Your task to perform on an android device: choose inbox layout in the gmail app Image 0: 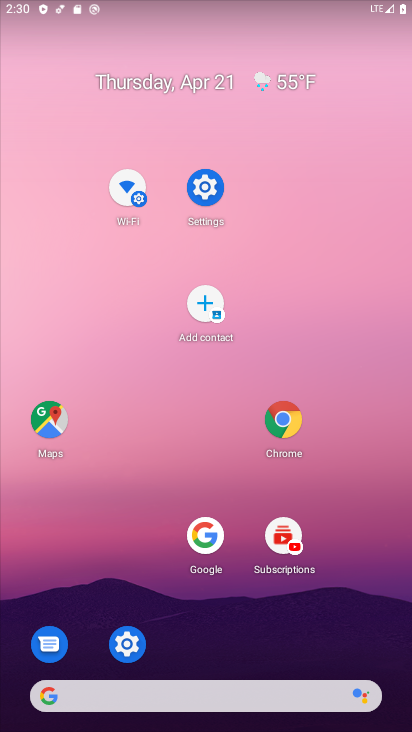
Step 0: drag from (193, 324) to (160, 220)
Your task to perform on an android device: choose inbox layout in the gmail app Image 1: 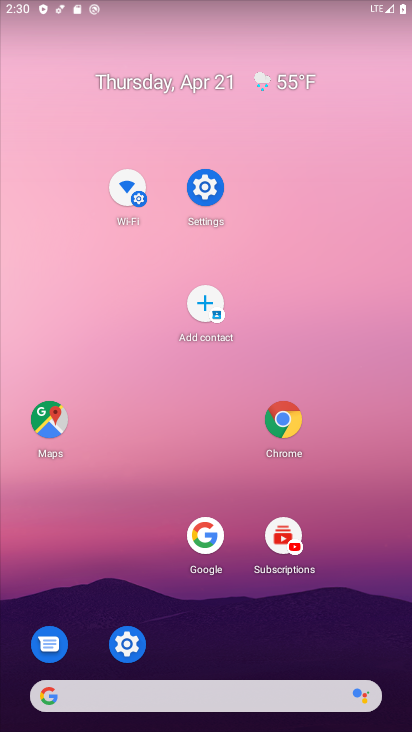
Step 1: drag from (255, 597) to (143, 45)
Your task to perform on an android device: choose inbox layout in the gmail app Image 2: 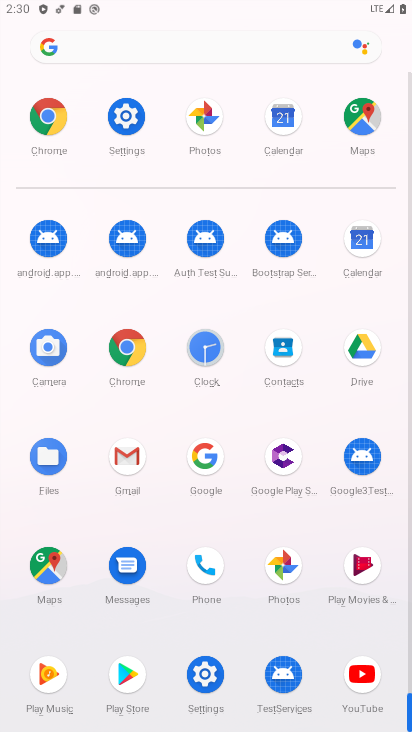
Step 2: click (130, 455)
Your task to perform on an android device: choose inbox layout in the gmail app Image 3: 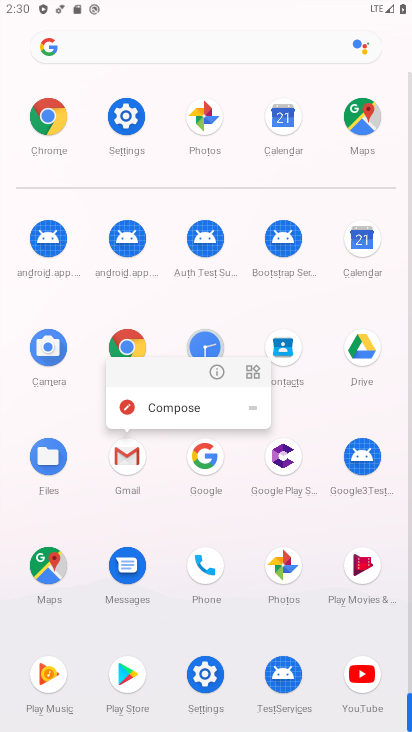
Step 3: click (124, 465)
Your task to perform on an android device: choose inbox layout in the gmail app Image 4: 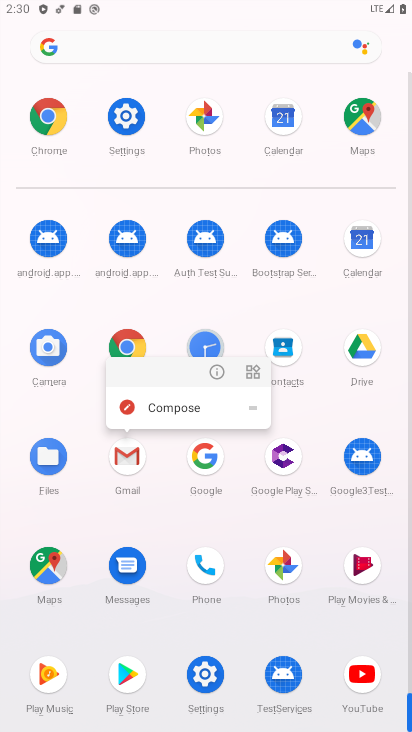
Step 4: click (124, 461)
Your task to perform on an android device: choose inbox layout in the gmail app Image 5: 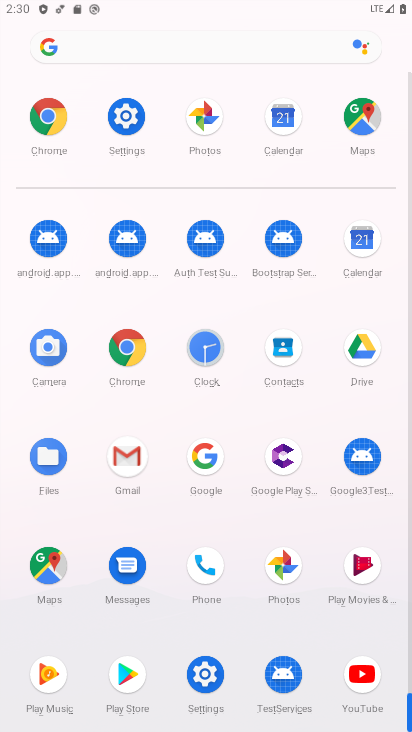
Step 5: click (124, 461)
Your task to perform on an android device: choose inbox layout in the gmail app Image 6: 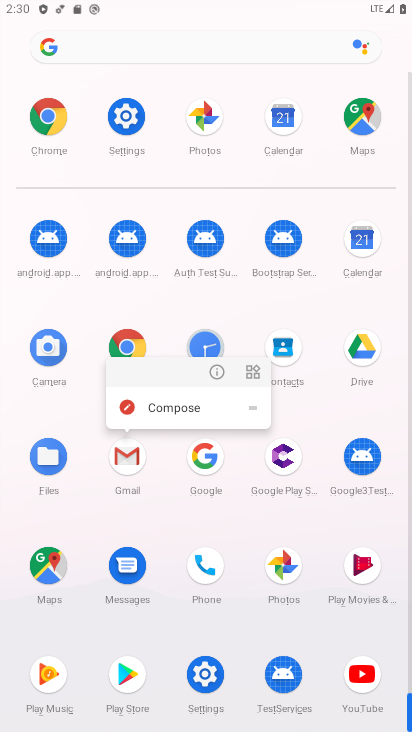
Step 6: click (129, 461)
Your task to perform on an android device: choose inbox layout in the gmail app Image 7: 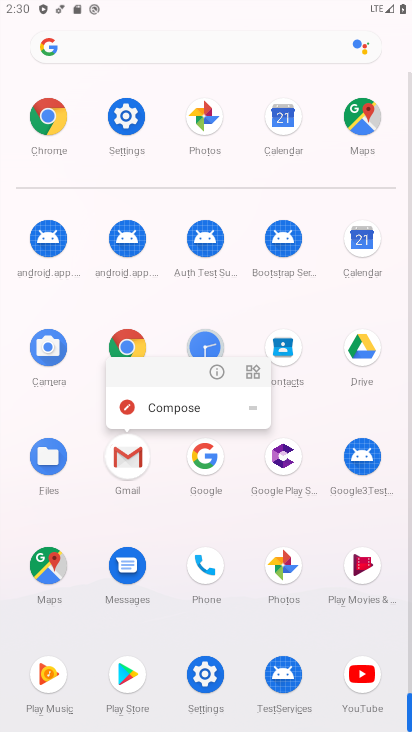
Step 7: click (127, 459)
Your task to perform on an android device: choose inbox layout in the gmail app Image 8: 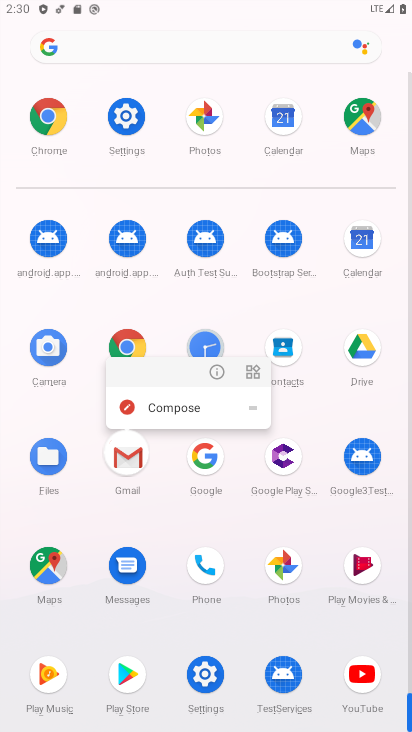
Step 8: click (126, 455)
Your task to perform on an android device: choose inbox layout in the gmail app Image 9: 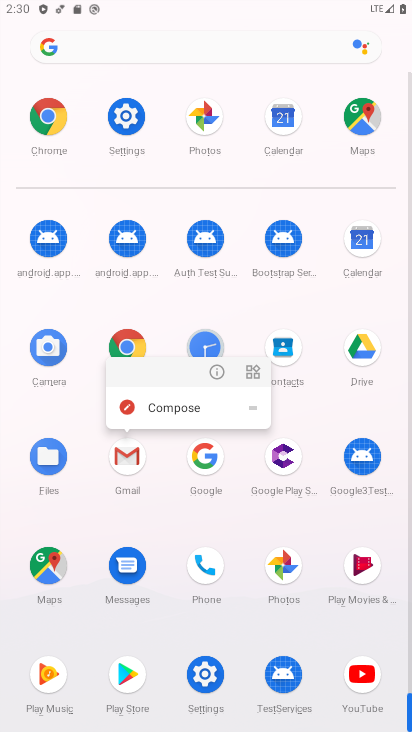
Step 9: click (120, 461)
Your task to perform on an android device: choose inbox layout in the gmail app Image 10: 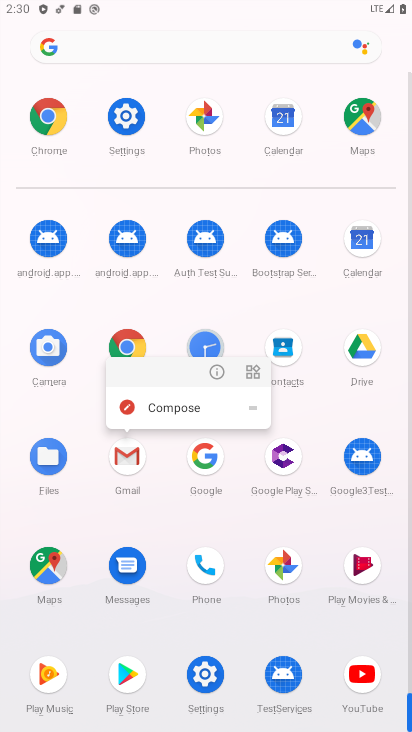
Step 10: click (120, 461)
Your task to perform on an android device: choose inbox layout in the gmail app Image 11: 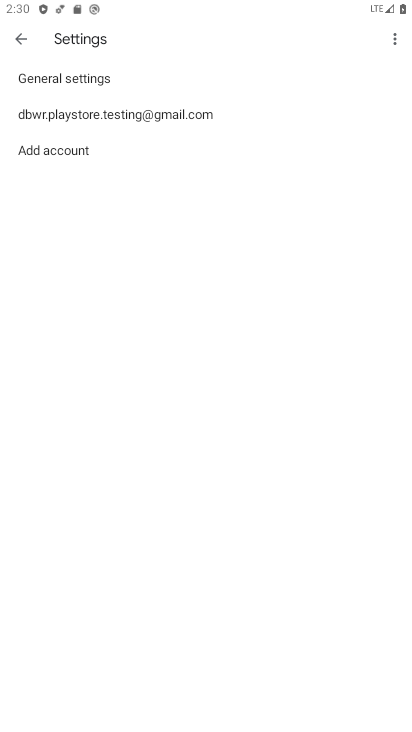
Step 11: click (26, 39)
Your task to perform on an android device: choose inbox layout in the gmail app Image 12: 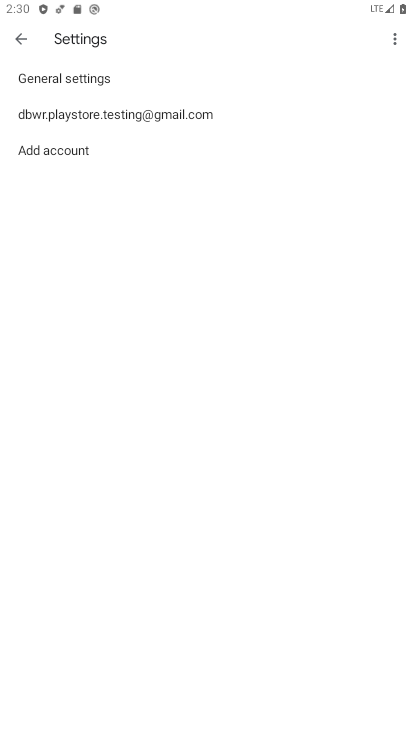
Step 12: click (25, 40)
Your task to perform on an android device: choose inbox layout in the gmail app Image 13: 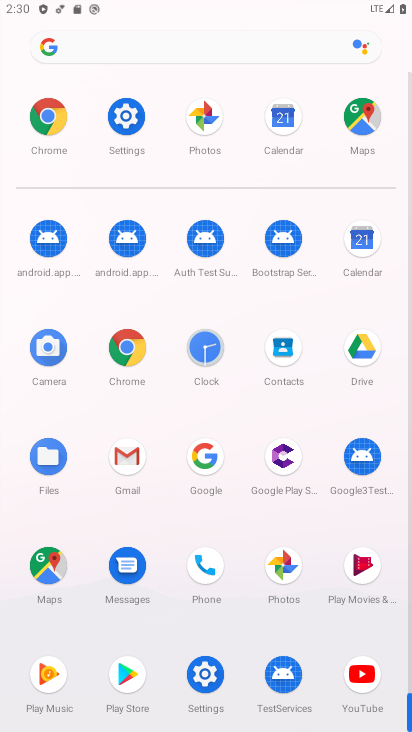
Step 13: click (125, 464)
Your task to perform on an android device: choose inbox layout in the gmail app Image 14: 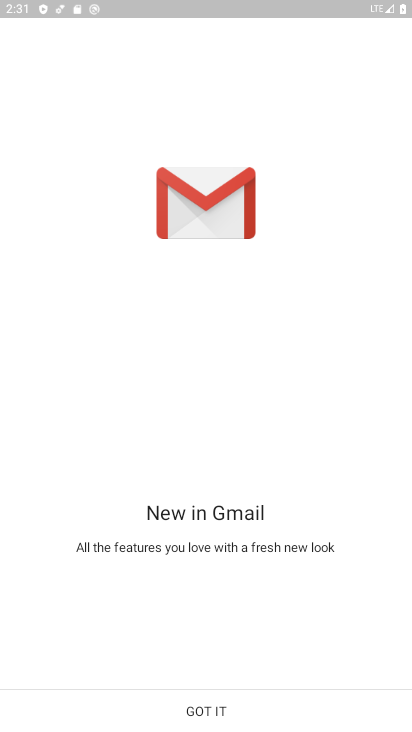
Step 14: click (192, 706)
Your task to perform on an android device: choose inbox layout in the gmail app Image 15: 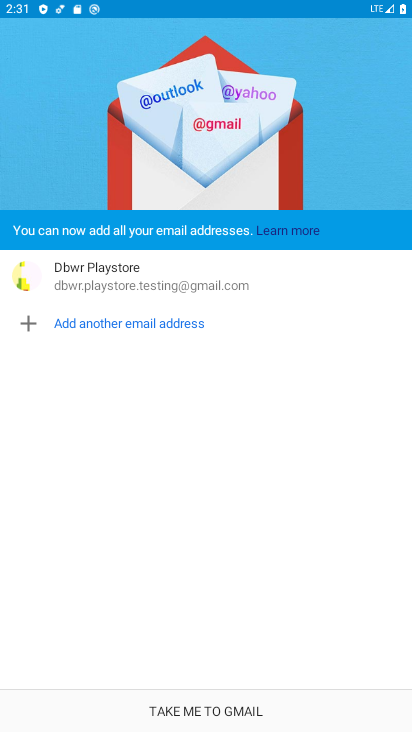
Step 15: click (212, 714)
Your task to perform on an android device: choose inbox layout in the gmail app Image 16: 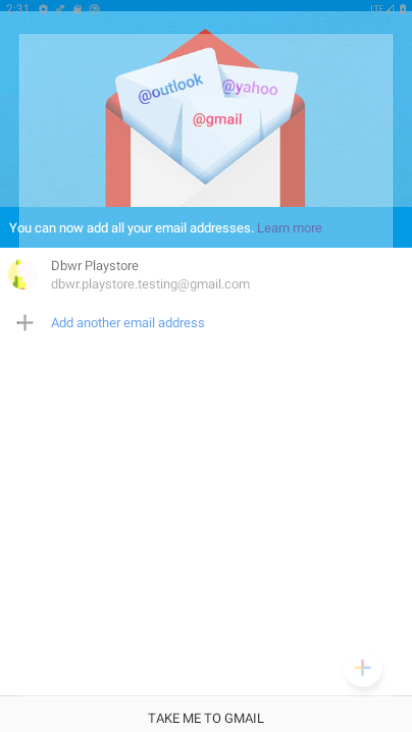
Step 16: click (209, 715)
Your task to perform on an android device: choose inbox layout in the gmail app Image 17: 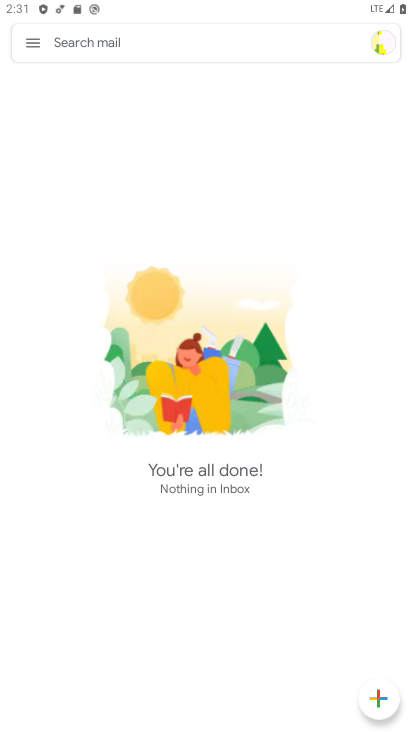
Step 17: drag from (28, 40) to (97, 471)
Your task to perform on an android device: choose inbox layout in the gmail app Image 18: 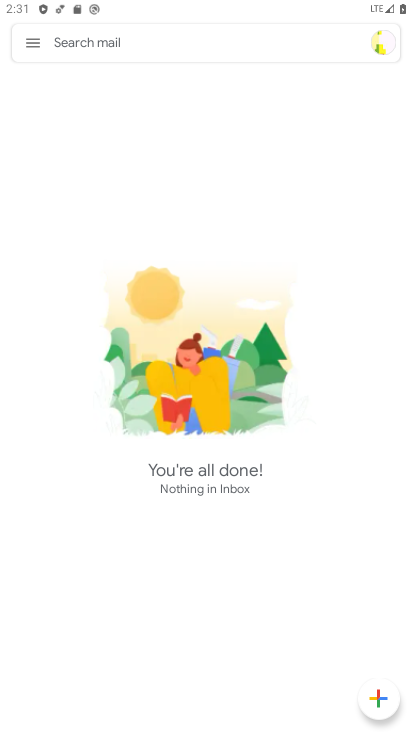
Step 18: click (37, 43)
Your task to perform on an android device: choose inbox layout in the gmail app Image 19: 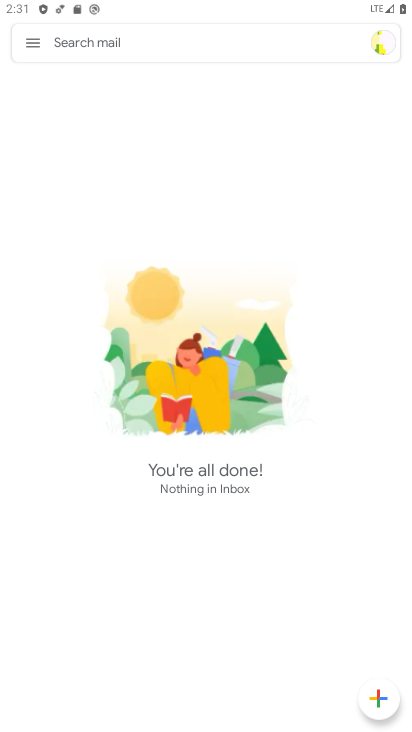
Step 19: click (37, 43)
Your task to perform on an android device: choose inbox layout in the gmail app Image 20: 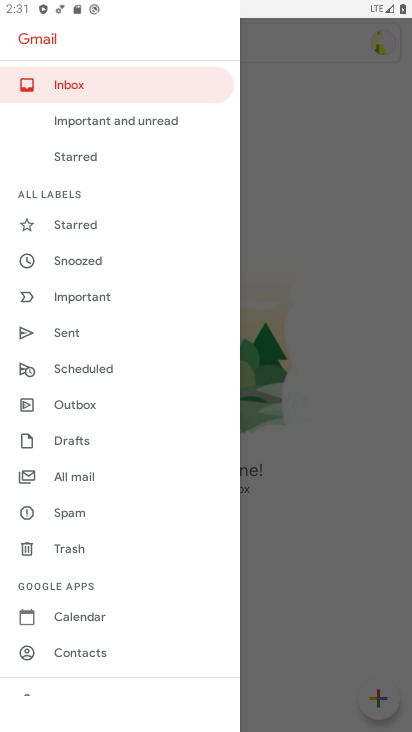
Step 20: drag from (90, 519) to (61, 215)
Your task to perform on an android device: choose inbox layout in the gmail app Image 21: 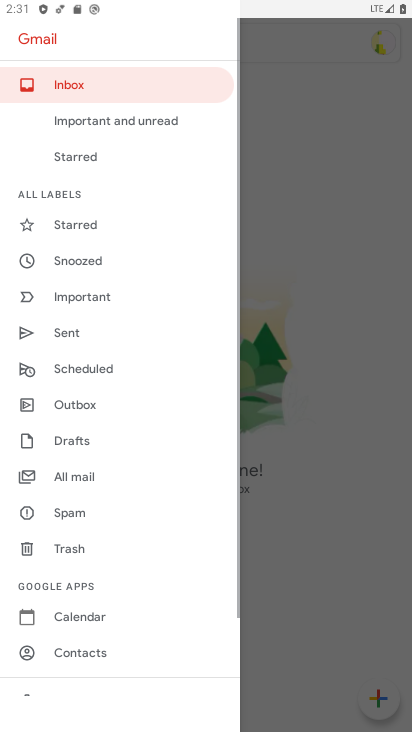
Step 21: drag from (99, 435) to (101, 219)
Your task to perform on an android device: choose inbox layout in the gmail app Image 22: 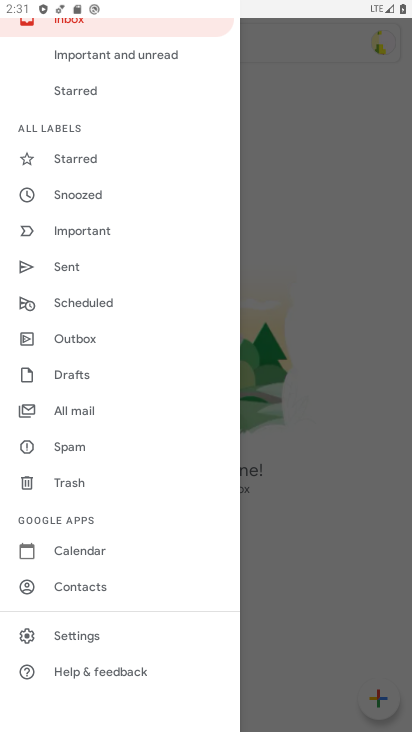
Step 22: click (61, 625)
Your task to perform on an android device: choose inbox layout in the gmail app Image 23: 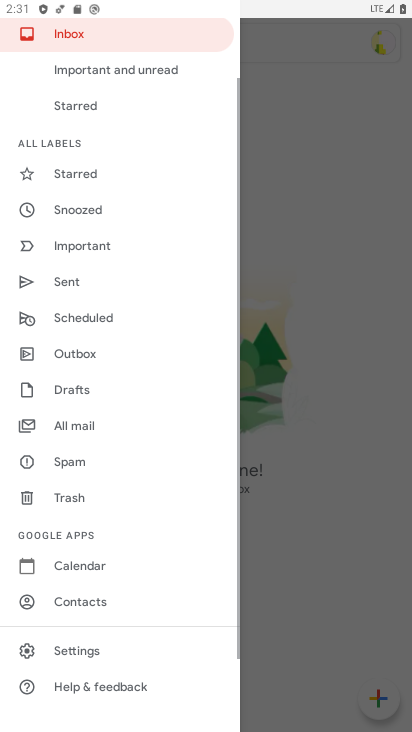
Step 23: click (87, 637)
Your task to perform on an android device: choose inbox layout in the gmail app Image 24: 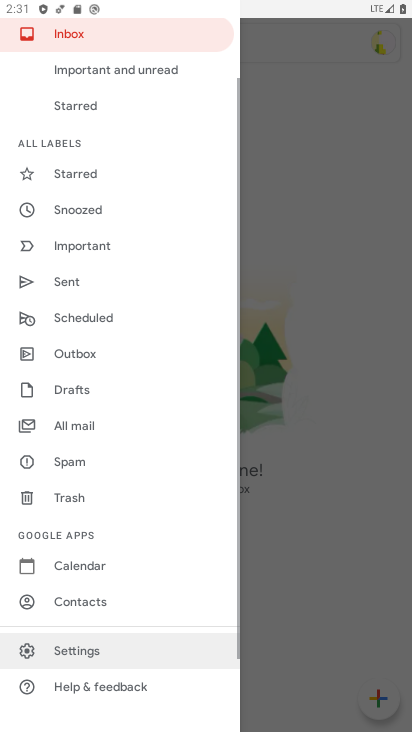
Step 24: click (82, 643)
Your task to perform on an android device: choose inbox layout in the gmail app Image 25: 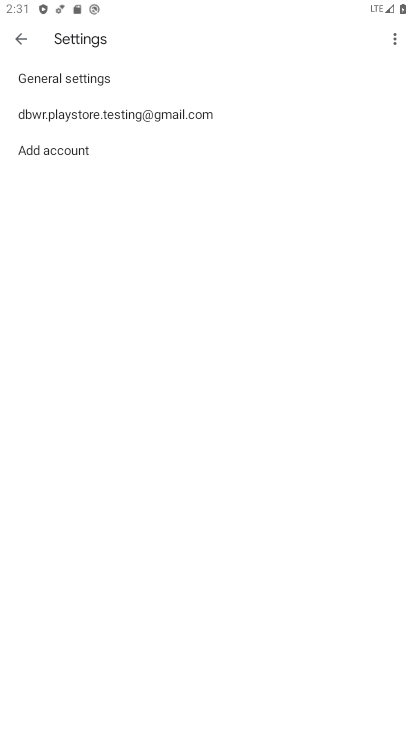
Step 25: click (71, 117)
Your task to perform on an android device: choose inbox layout in the gmail app Image 26: 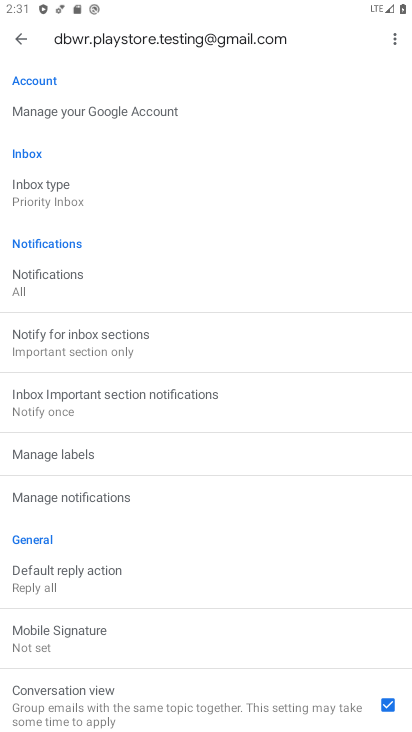
Step 26: task complete